Your task to perform on an android device: Go to internet settings Image 0: 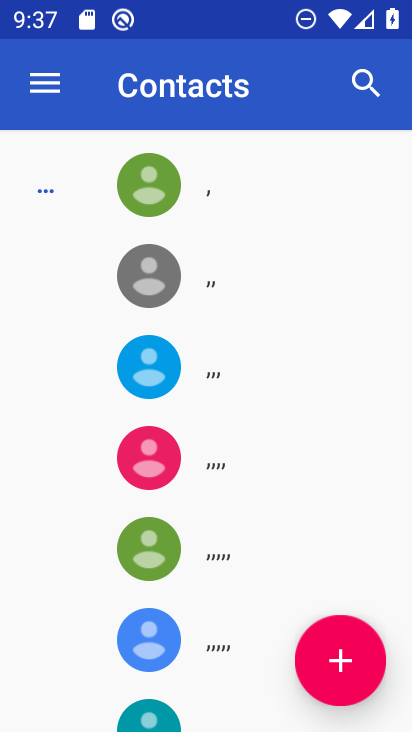
Step 0: press home button
Your task to perform on an android device: Go to internet settings Image 1: 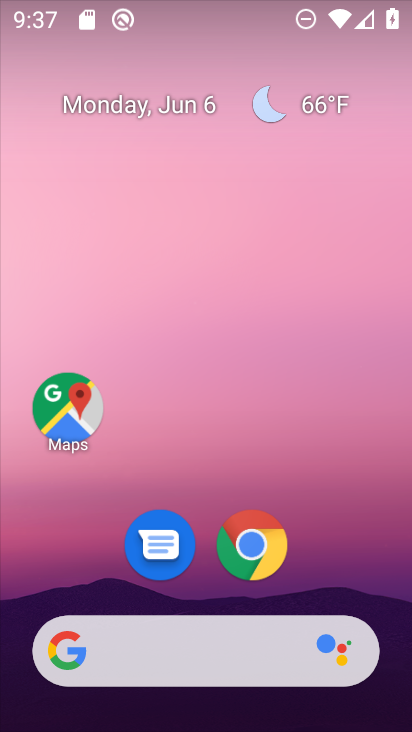
Step 1: drag from (208, 562) to (268, 265)
Your task to perform on an android device: Go to internet settings Image 2: 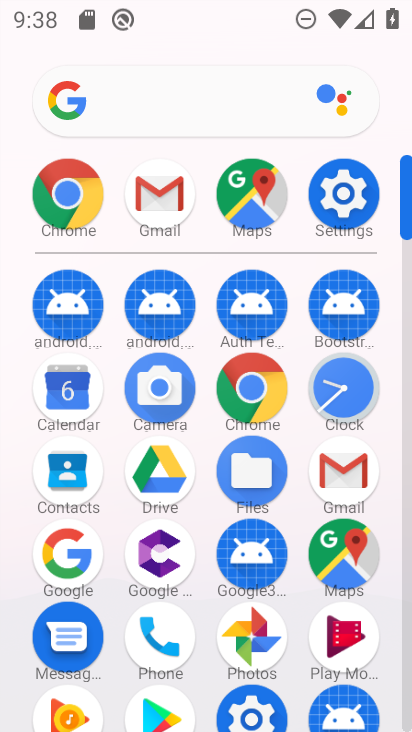
Step 2: click (342, 197)
Your task to perform on an android device: Go to internet settings Image 3: 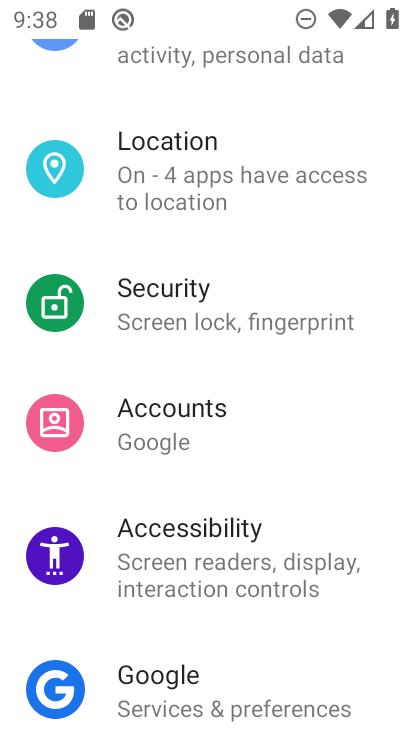
Step 3: drag from (247, 225) to (234, 479)
Your task to perform on an android device: Go to internet settings Image 4: 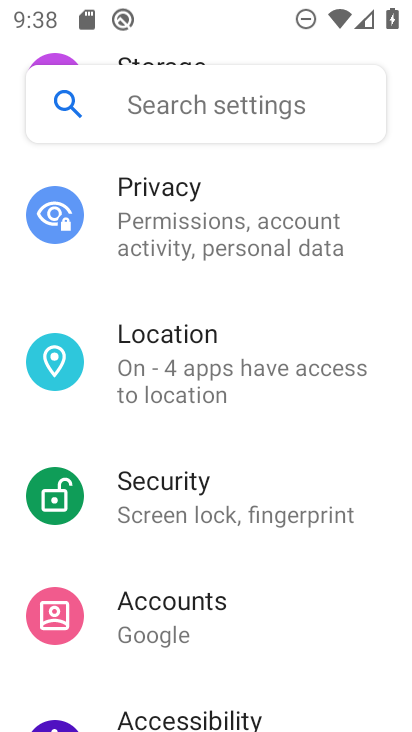
Step 4: drag from (219, 235) to (209, 578)
Your task to perform on an android device: Go to internet settings Image 5: 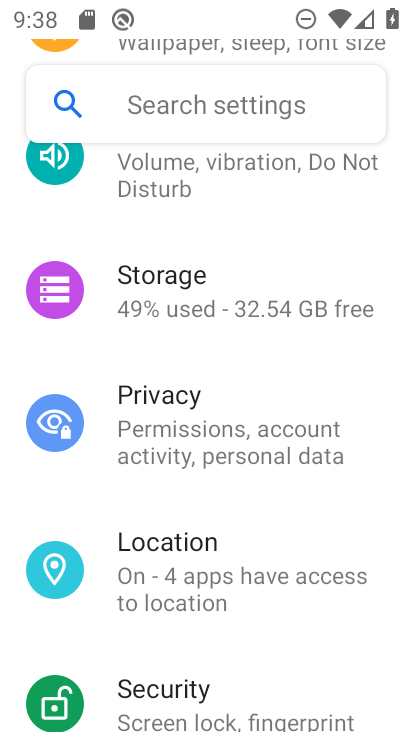
Step 5: drag from (263, 249) to (268, 650)
Your task to perform on an android device: Go to internet settings Image 6: 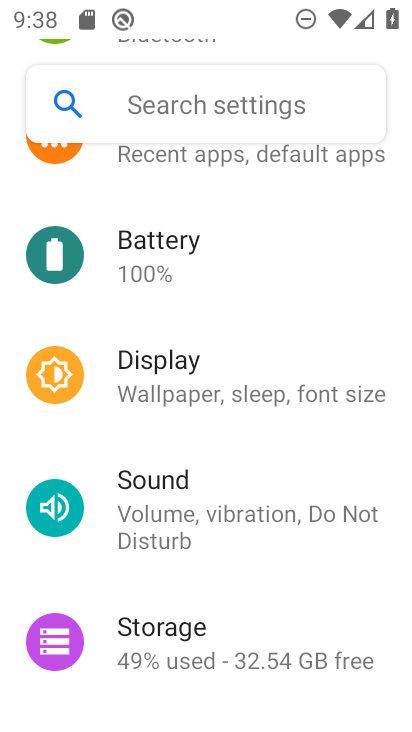
Step 6: drag from (235, 398) to (232, 705)
Your task to perform on an android device: Go to internet settings Image 7: 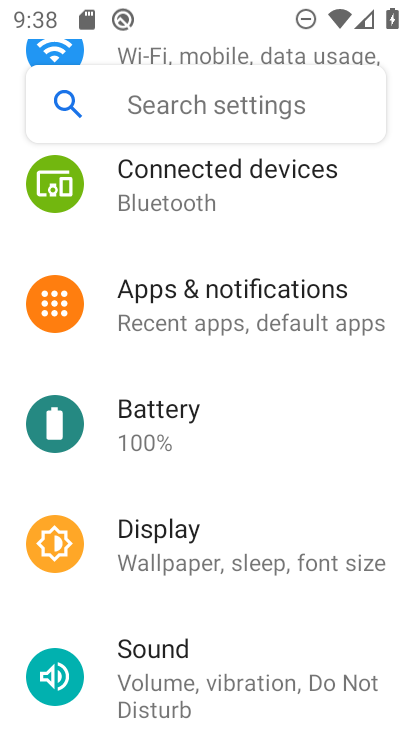
Step 7: drag from (204, 243) to (172, 726)
Your task to perform on an android device: Go to internet settings Image 8: 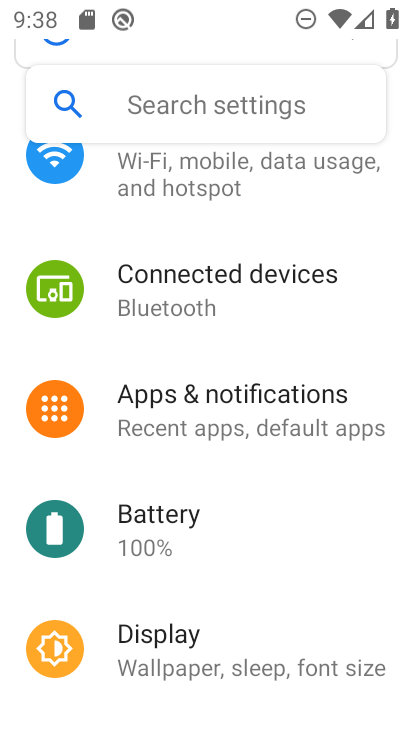
Step 8: drag from (211, 261) to (213, 674)
Your task to perform on an android device: Go to internet settings Image 9: 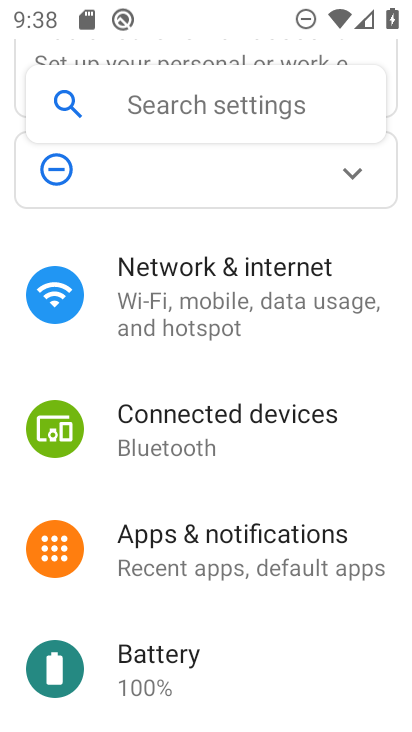
Step 9: click (213, 320)
Your task to perform on an android device: Go to internet settings Image 10: 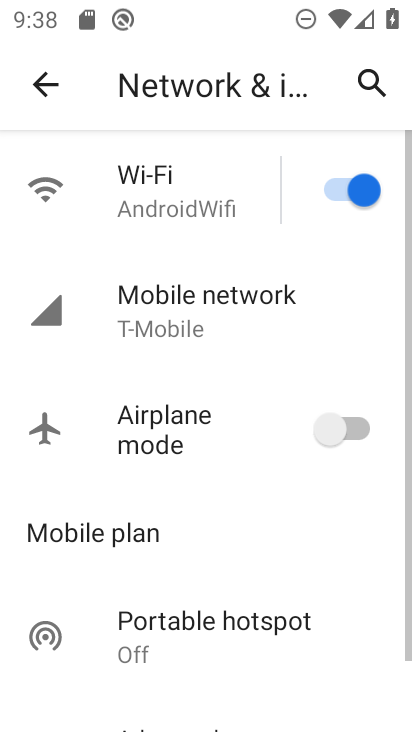
Step 10: task complete